Your task to perform on an android device: Is it going to rain today? Image 0: 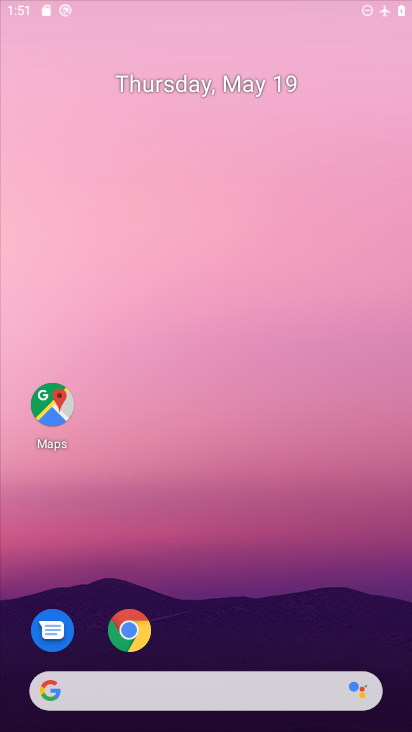
Step 0: drag from (189, 654) to (190, 145)
Your task to perform on an android device: Is it going to rain today? Image 1: 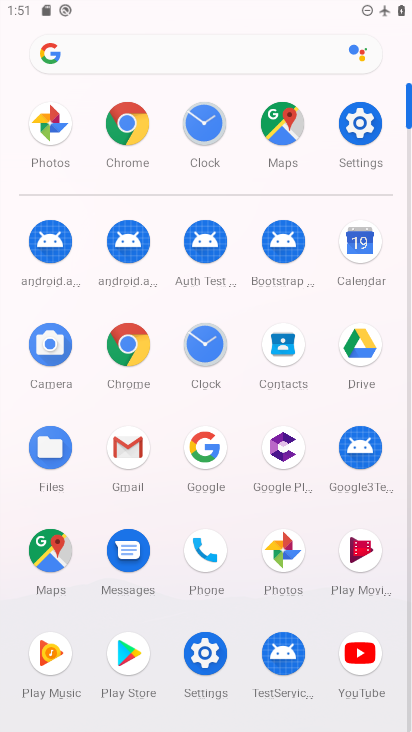
Step 1: click (203, 464)
Your task to perform on an android device: Is it going to rain today? Image 2: 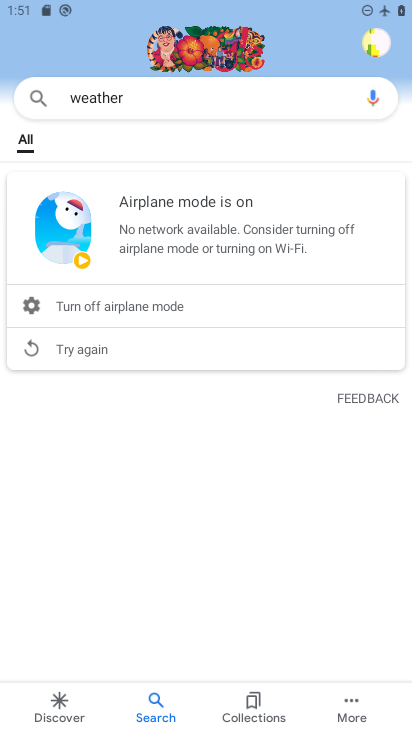
Step 2: task complete